Your task to perform on an android device: check the backup settings in the google photos Image 0: 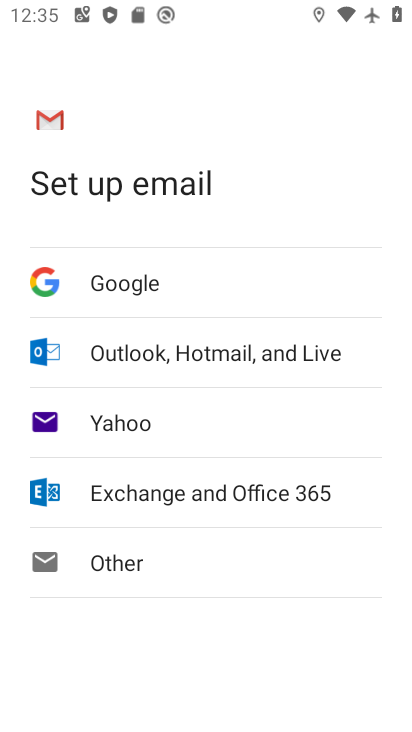
Step 0: press home button
Your task to perform on an android device: check the backup settings in the google photos Image 1: 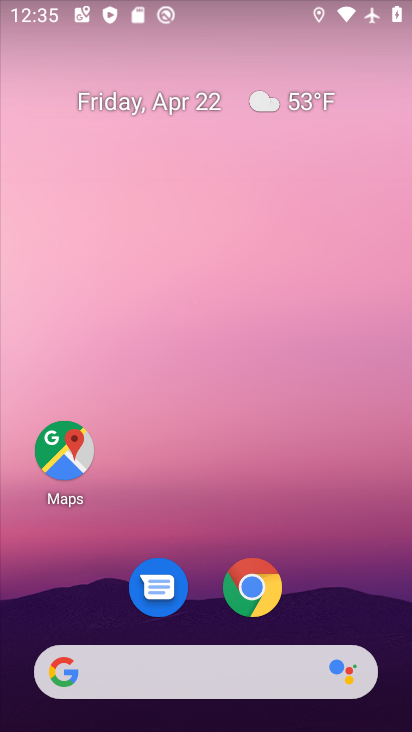
Step 1: drag from (185, 673) to (348, 162)
Your task to perform on an android device: check the backup settings in the google photos Image 2: 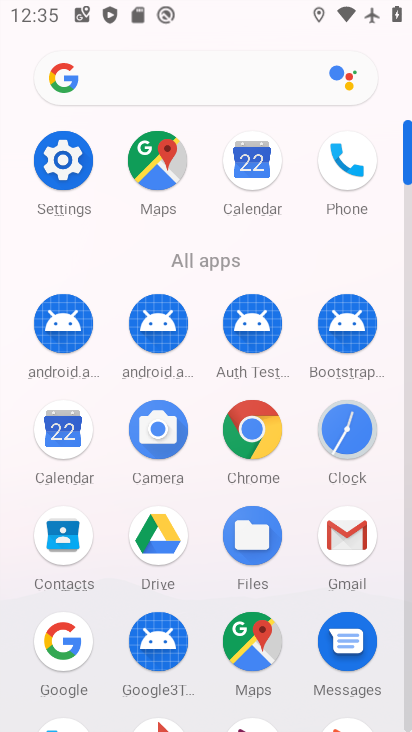
Step 2: drag from (149, 589) to (316, 281)
Your task to perform on an android device: check the backup settings in the google photos Image 3: 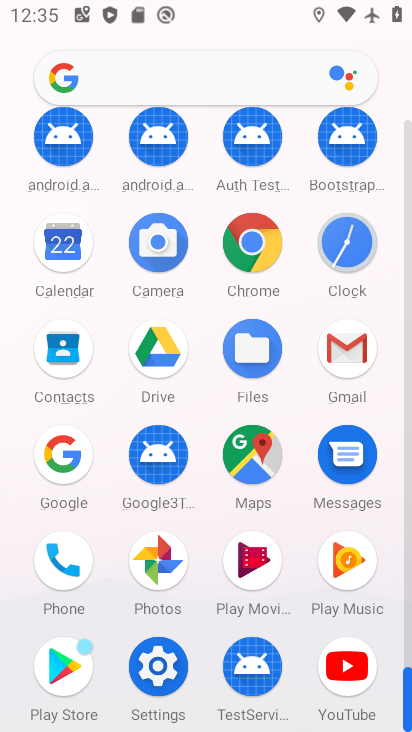
Step 3: click (165, 561)
Your task to perform on an android device: check the backup settings in the google photos Image 4: 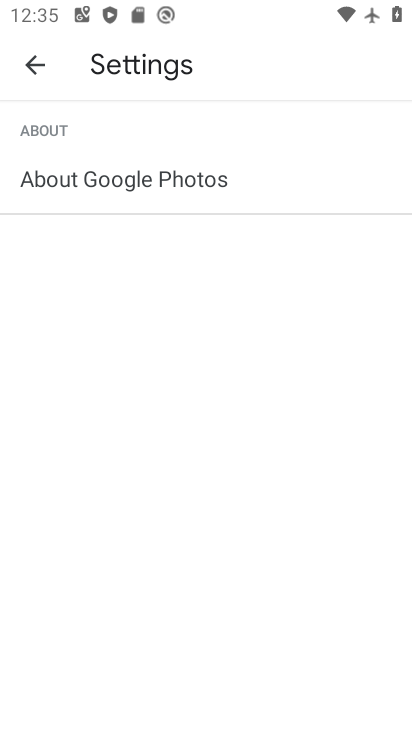
Step 4: click (32, 66)
Your task to perform on an android device: check the backup settings in the google photos Image 5: 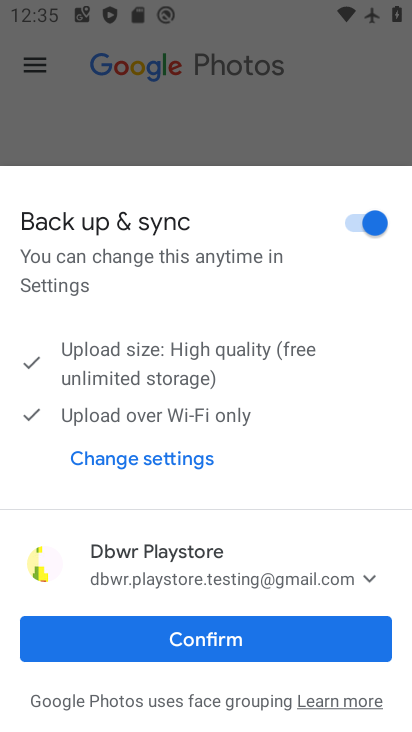
Step 5: click (187, 642)
Your task to perform on an android device: check the backup settings in the google photos Image 6: 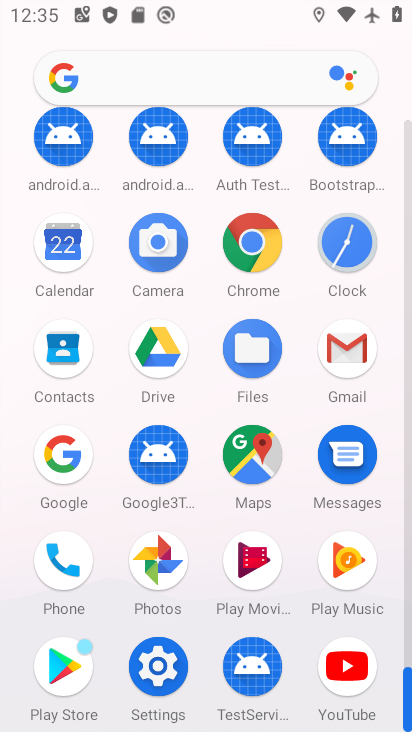
Step 6: click (168, 566)
Your task to perform on an android device: check the backup settings in the google photos Image 7: 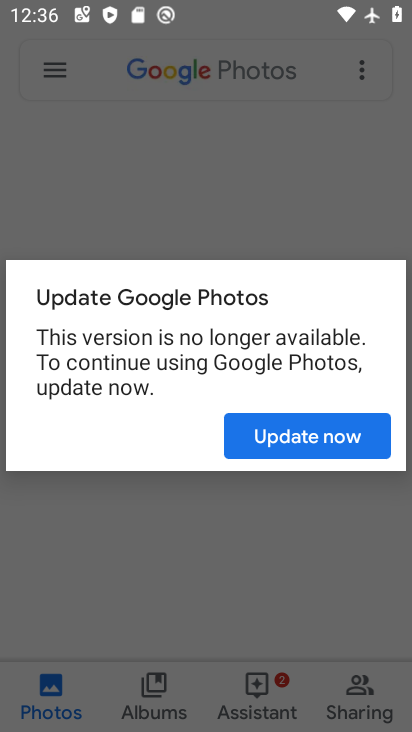
Step 7: click (281, 441)
Your task to perform on an android device: check the backup settings in the google photos Image 8: 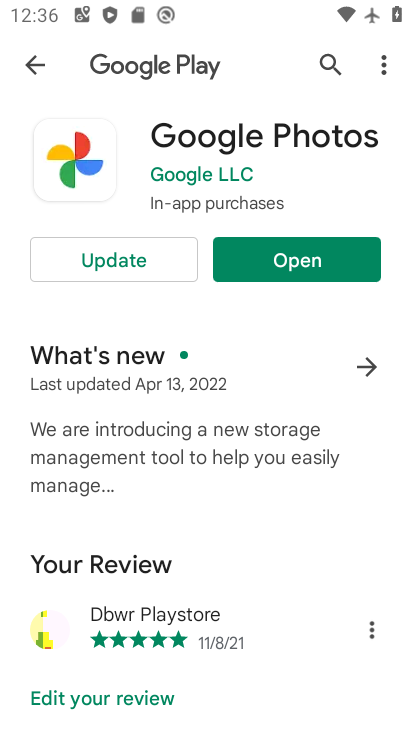
Step 8: click (279, 254)
Your task to perform on an android device: check the backup settings in the google photos Image 9: 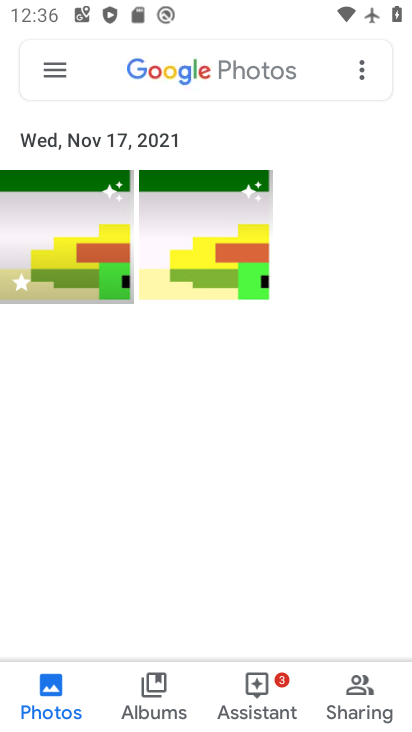
Step 9: click (54, 67)
Your task to perform on an android device: check the backup settings in the google photos Image 10: 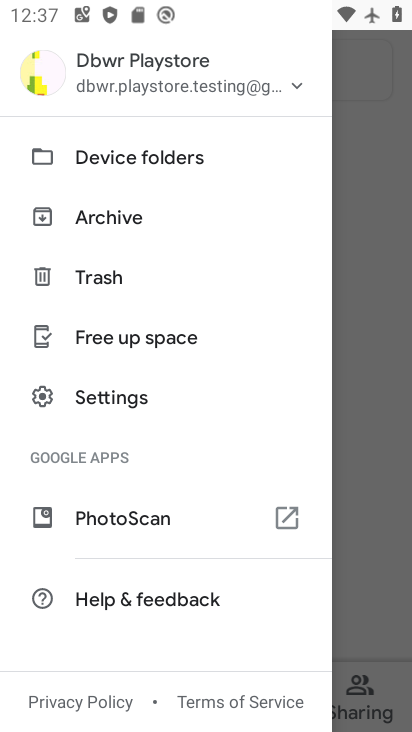
Step 10: click (130, 391)
Your task to perform on an android device: check the backup settings in the google photos Image 11: 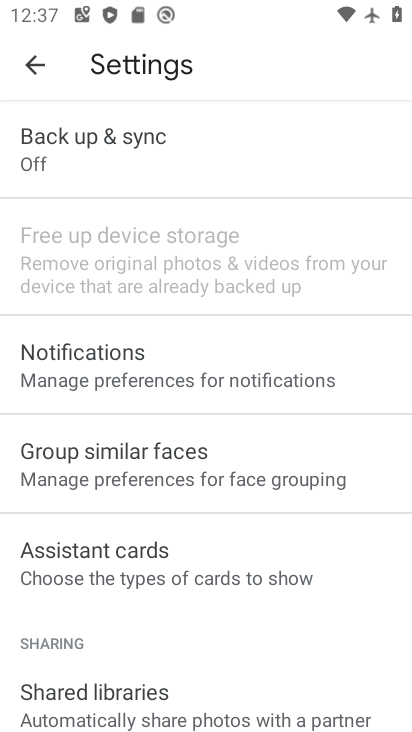
Step 11: click (156, 164)
Your task to perform on an android device: check the backup settings in the google photos Image 12: 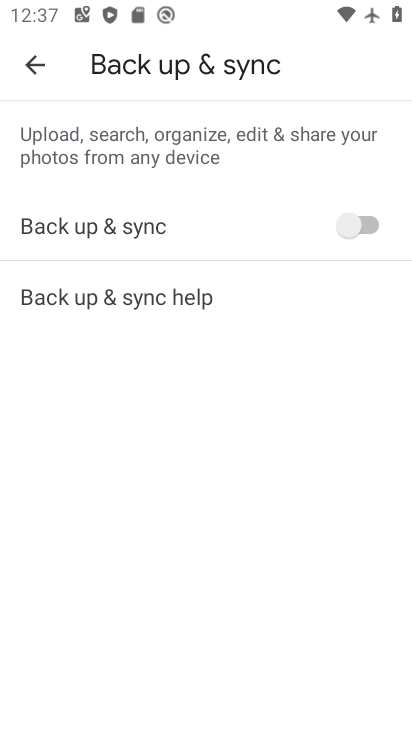
Step 12: click (364, 229)
Your task to perform on an android device: check the backup settings in the google photos Image 13: 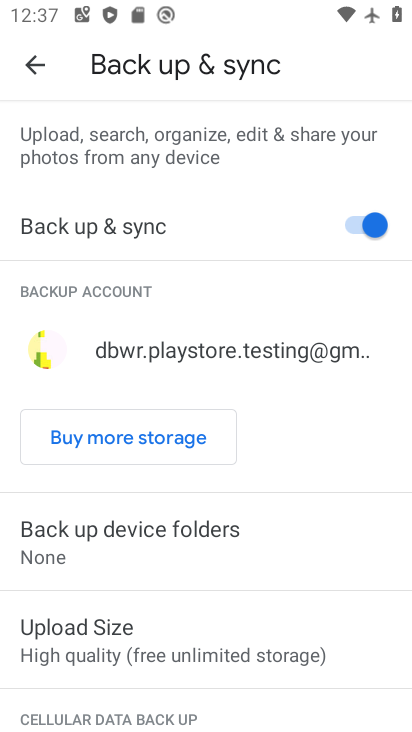
Step 13: task complete